Your task to perform on an android device: Open Google Chrome and open the bookmarks view Image 0: 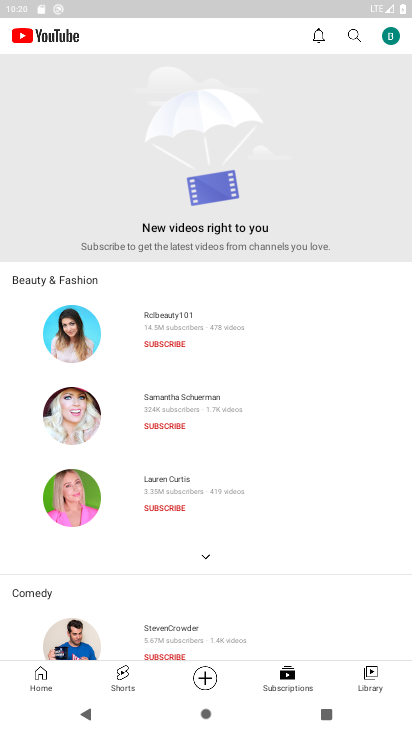
Step 0: press home button
Your task to perform on an android device: Open Google Chrome and open the bookmarks view Image 1: 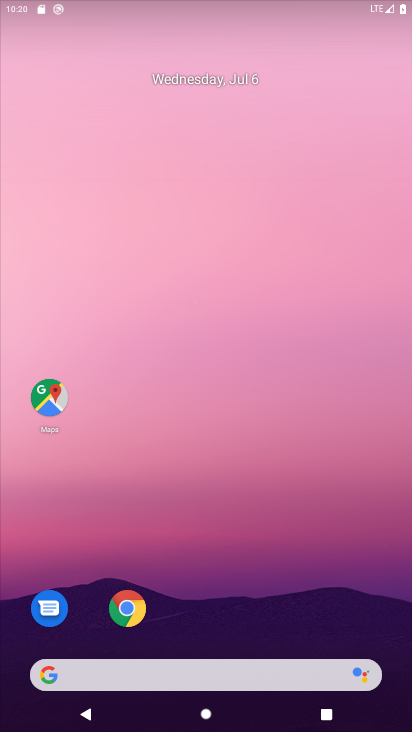
Step 1: drag from (181, 607) to (352, 0)
Your task to perform on an android device: Open Google Chrome and open the bookmarks view Image 2: 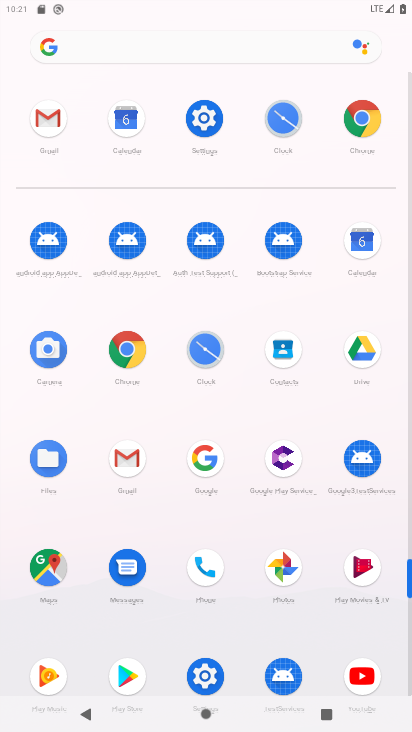
Step 2: click (131, 364)
Your task to perform on an android device: Open Google Chrome and open the bookmarks view Image 3: 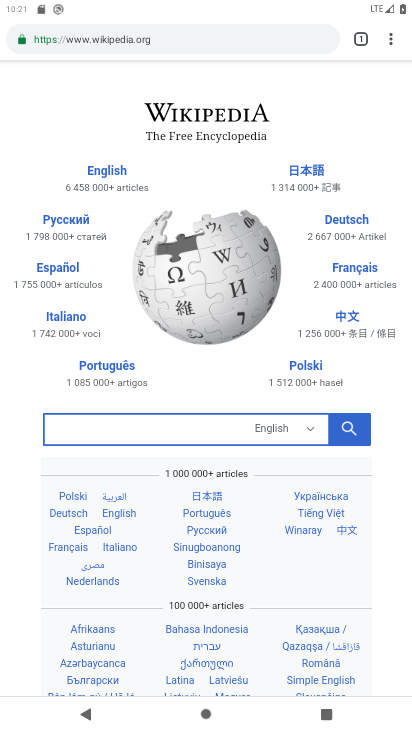
Step 3: click (394, 33)
Your task to perform on an android device: Open Google Chrome and open the bookmarks view Image 4: 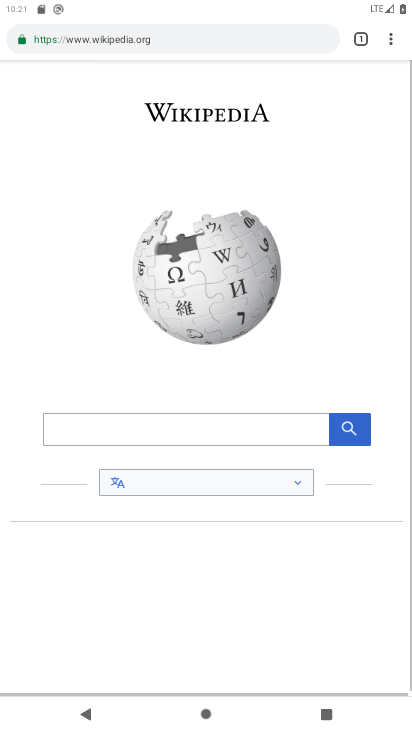
Step 4: click (392, 38)
Your task to perform on an android device: Open Google Chrome and open the bookmarks view Image 5: 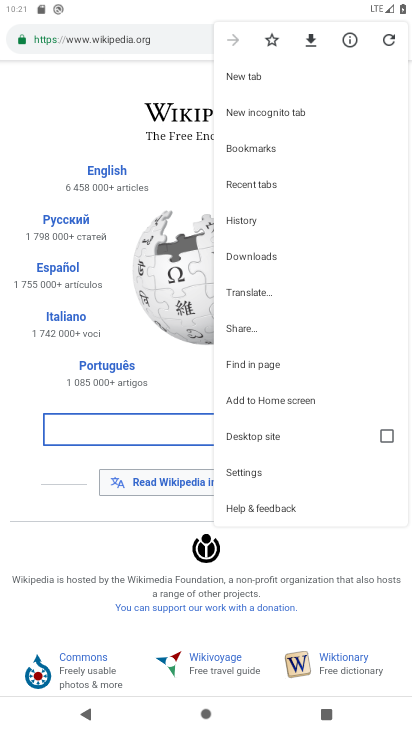
Step 5: click (263, 146)
Your task to perform on an android device: Open Google Chrome and open the bookmarks view Image 6: 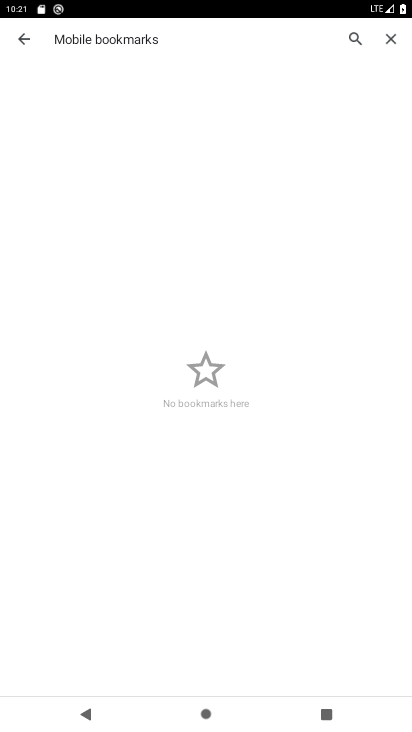
Step 6: task complete